Your task to perform on an android device: turn on location history Image 0: 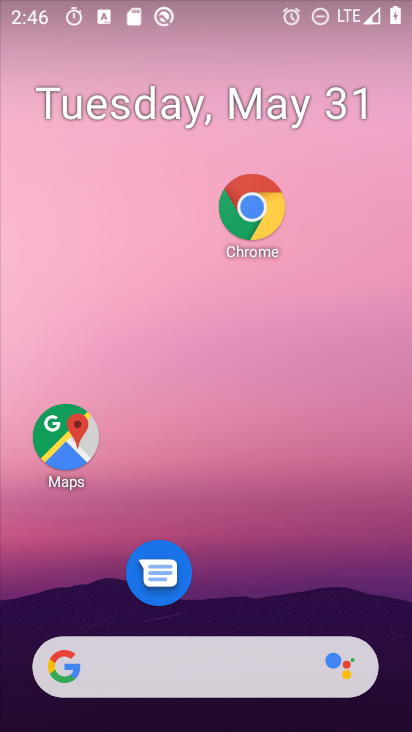
Step 0: drag from (182, 615) to (327, 34)
Your task to perform on an android device: turn on location history Image 1: 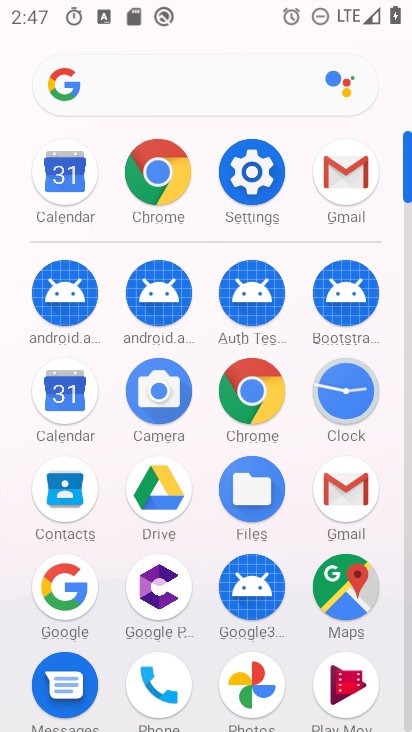
Step 1: click (275, 169)
Your task to perform on an android device: turn on location history Image 2: 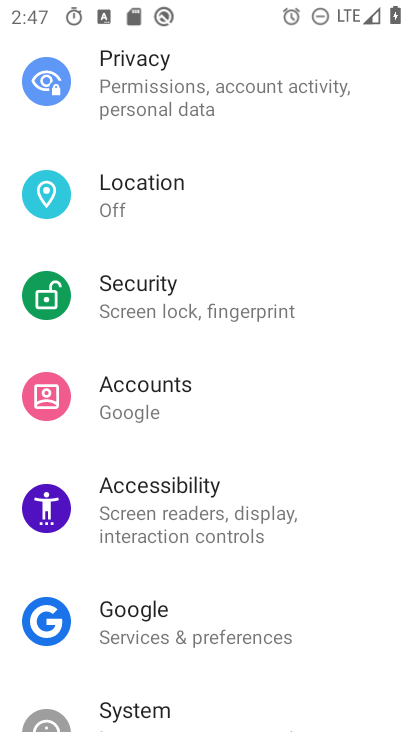
Step 2: drag from (172, 529) to (167, 675)
Your task to perform on an android device: turn on location history Image 3: 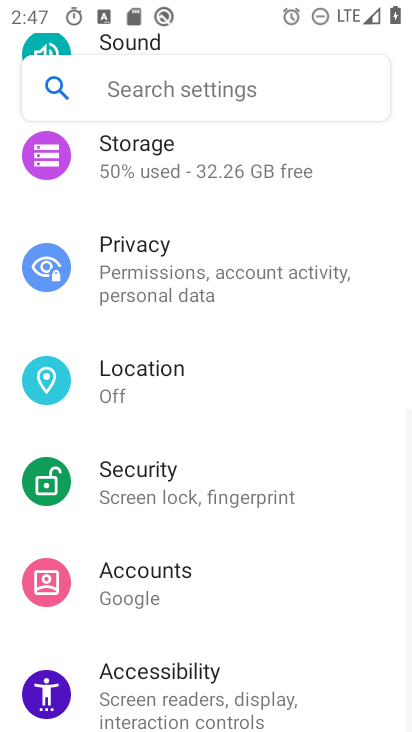
Step 3: click (204, 335)
Your task to perform on an android device: turn on location history Image 4: 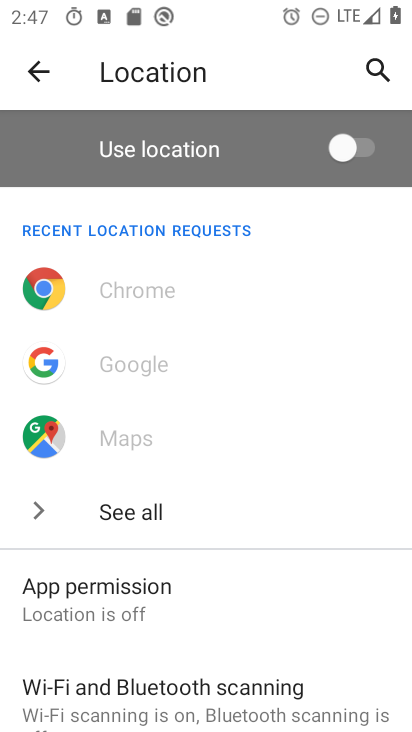
Step 4: drag from (190, 585) to (242, 189)
Your task to perform on an android device: turn on location history Image 5: 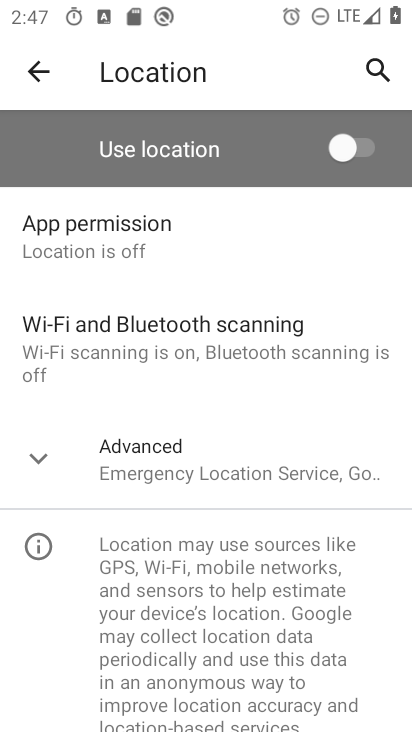
Step 5: click (200, 475)
Your task to perform on an android device: turn on location history Image 6: 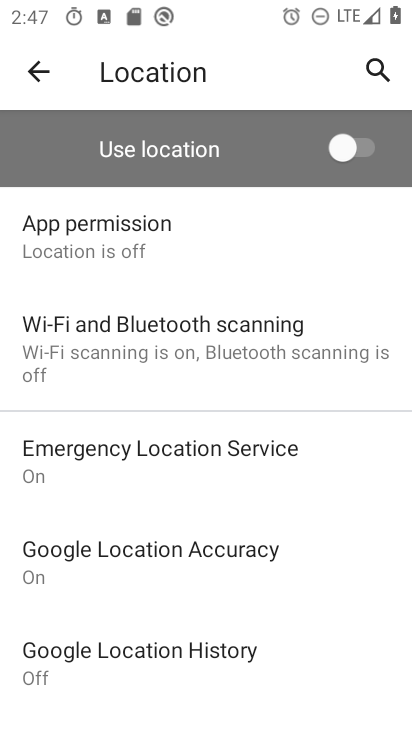
Step 6: drag from (198, 581) to (198, 406)
Your task to perform on an android device: turn on location history Image 7: 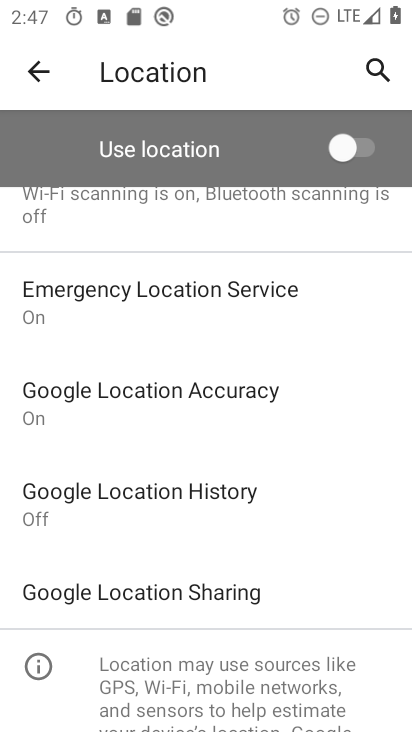
Step 7: click (199, 506)
Your task to perform on an android device: turn on location history Image 8: 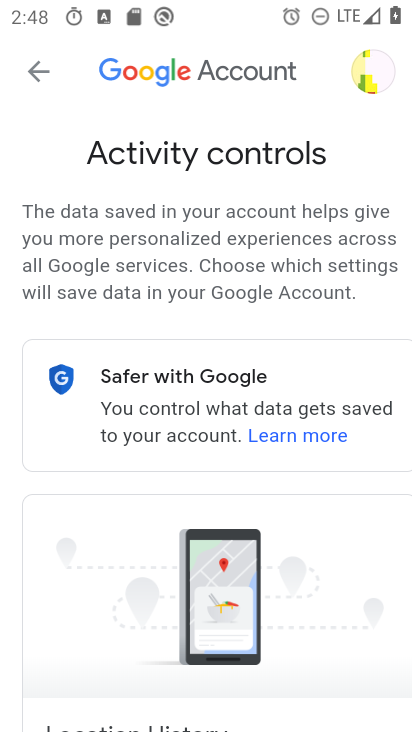
Step 8: task complete